Your task to perform on an android device: find photos in the google photos app Image 0: 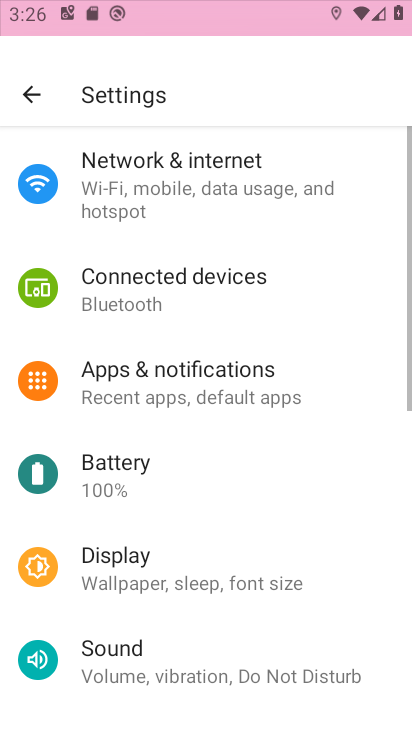
Step 0: press back button
Your task to perform on an android device: find photos in the google photos app Image 1: 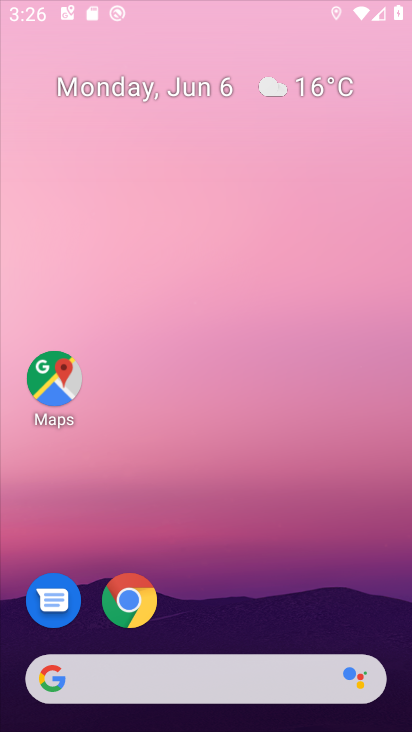
Step 1: press home button
Your task to perform on an android device: find photos in the google photos app Image 2: 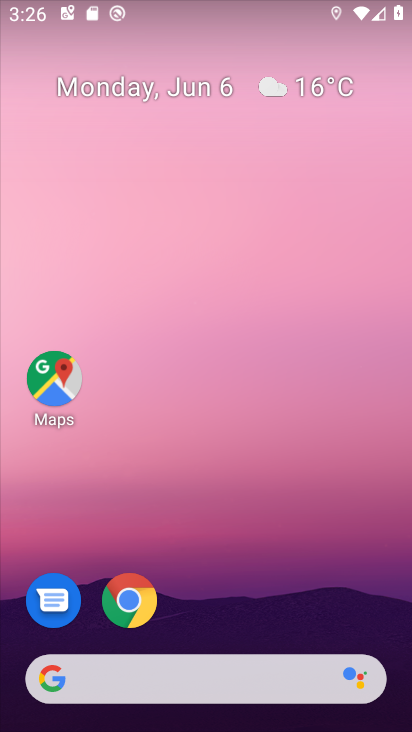
Step 2: click (132, 124)
Your task to perform on an android device: find photos in the google photos app Image 3: 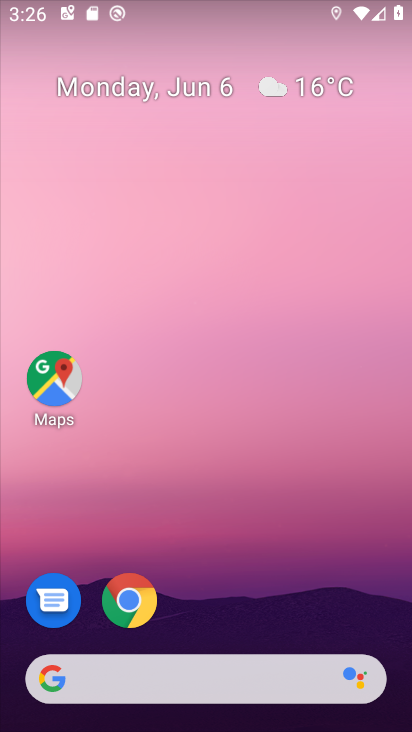
Step 3: drag from (268, 560) to (173, 39)
Your task to perform on an android device: find photos in the google photos app Image 4: 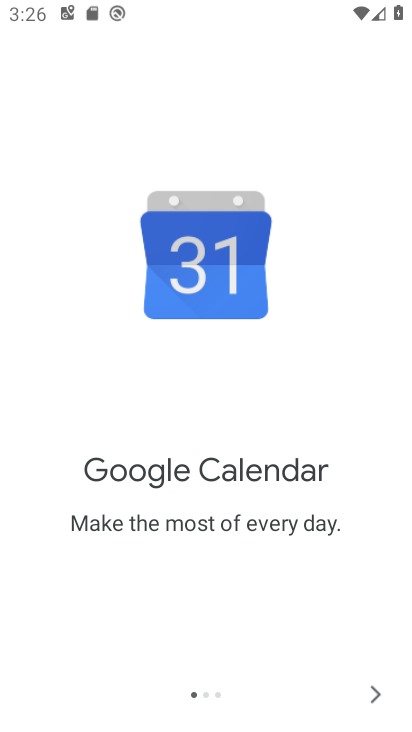
Step 4: click (374, 701)
Your task to perform on an android device: find photos in the google photos app Image 5: 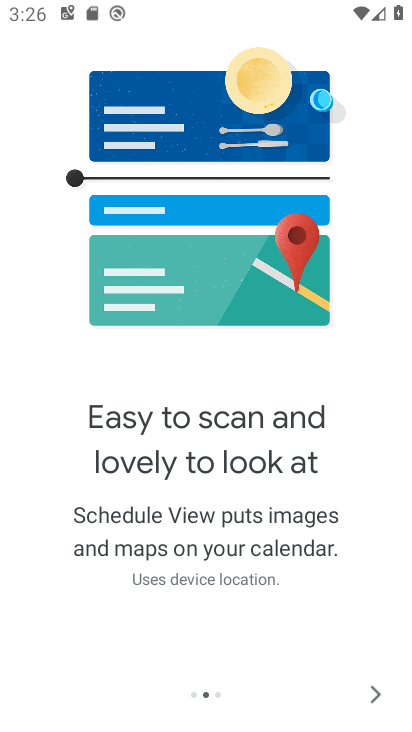
Step 5: click (366, 685)
Your task to perform on an android device: find photos in the google photos app Image 6: 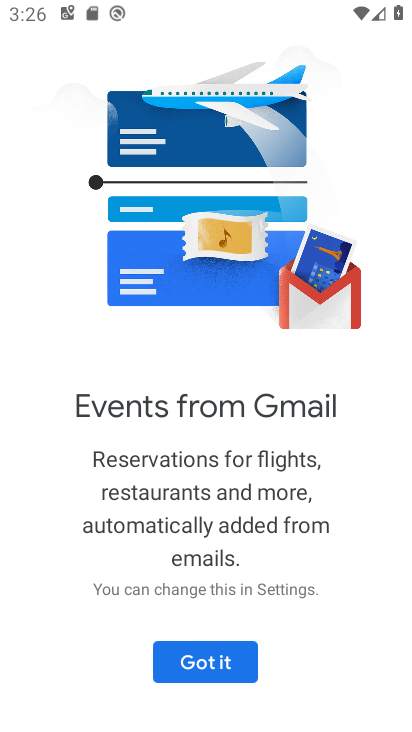
Step 6: click (207, 666)
Your task to perform on an android device: find photos in the google photos app Image 7: 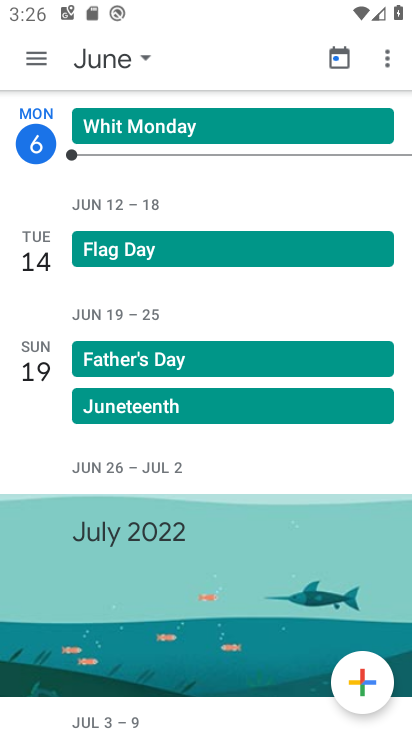
Step 7: press back button
Your task to perform on an android device: find photos in the google photos app Image 8: 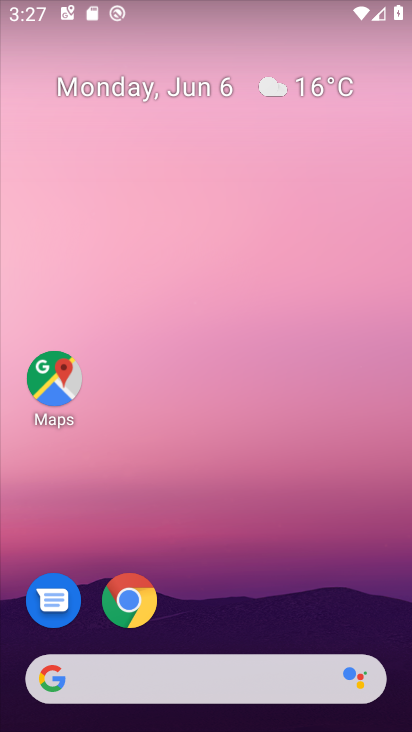
Step 8: drag from (214, 686) to (131, 5)
Your task to perform on an android device: find photos in the google photos app Image 9: 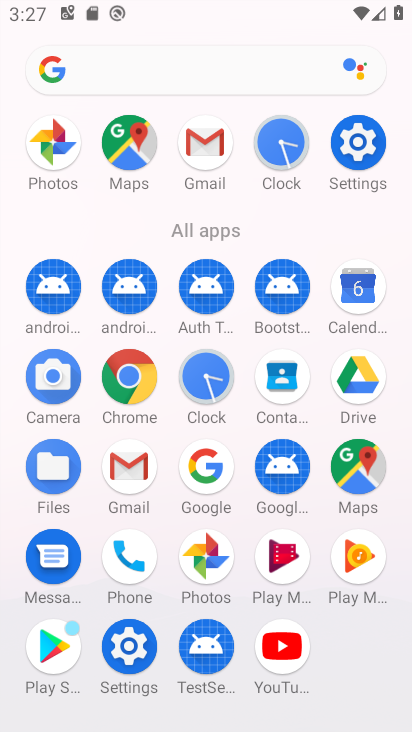
Step 9: click (205, 552)
Your task to perform on an android device: find photos in the google photos app Image 10: 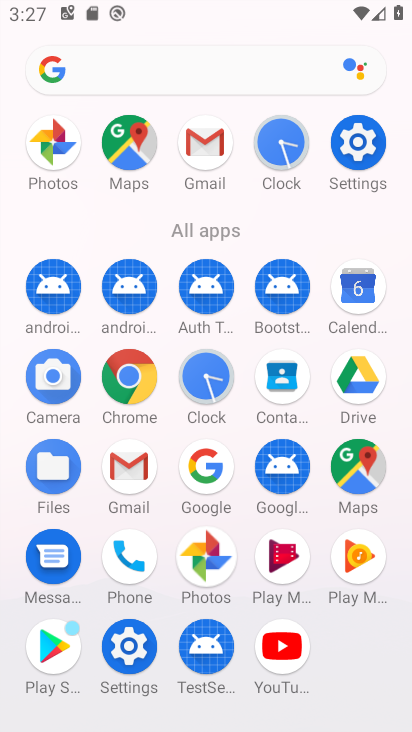
Step 10: click (203, 554)
Your task to perform on an android device: find photos in the google photos app Image 11: 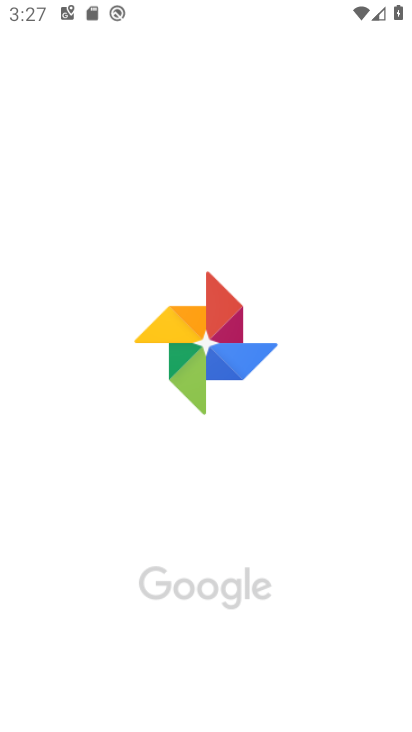
Step 11: click (202, 561)
Your task to perform on an android device: find photos in the google photos app Image 12: 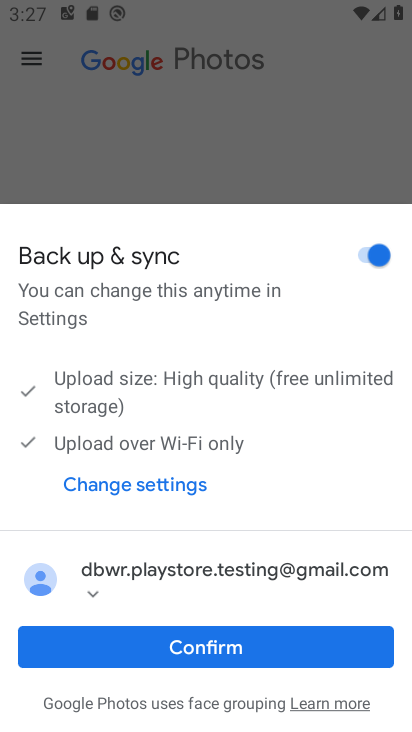
Step 12: click (213, 647)
Your task to perform on an android device: find photos in the google photos app Image 13: 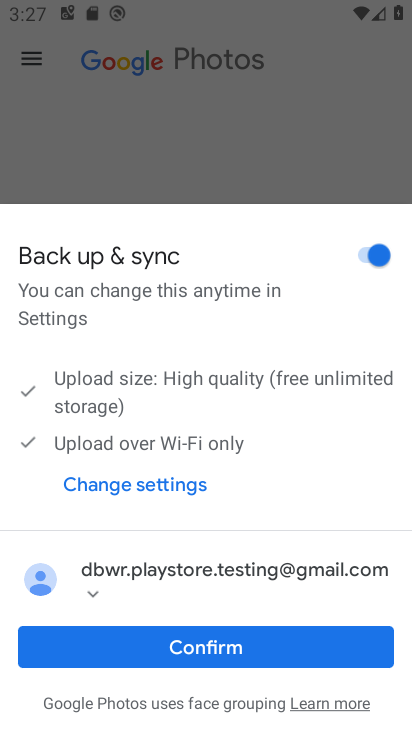
Step 13: click (203, 643)
Your task to perform on an android device: find photos in the google photos app Image 14: 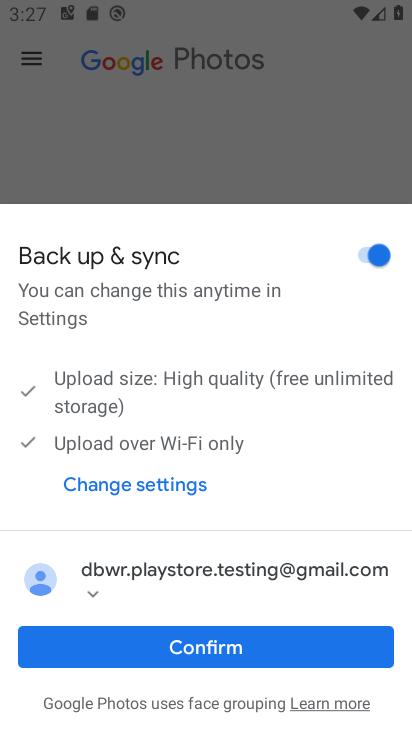
Step 14: click (203, 643)
Your task to perform on an android device: find photos in the google photos app Image 15: 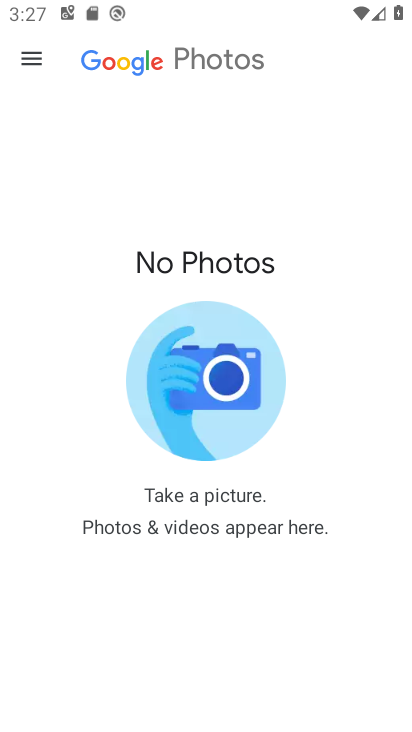
Step 15: click (205, 641)
Your task to perform on an android device: find photos in the google photos app Image 16: 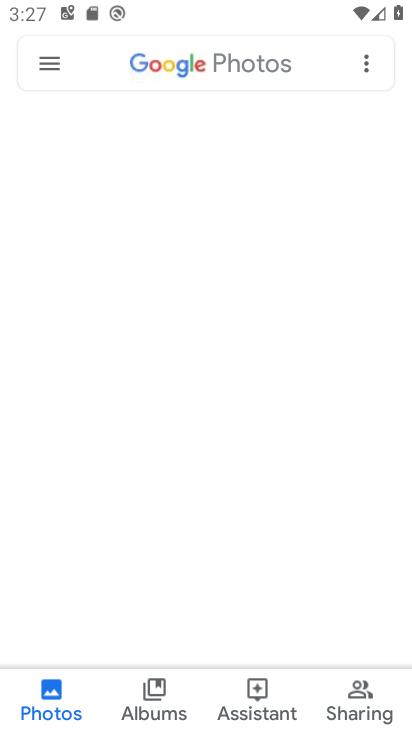
Step 16: task complete